Your task to perform on an android device: change keyboard looks Image 0: 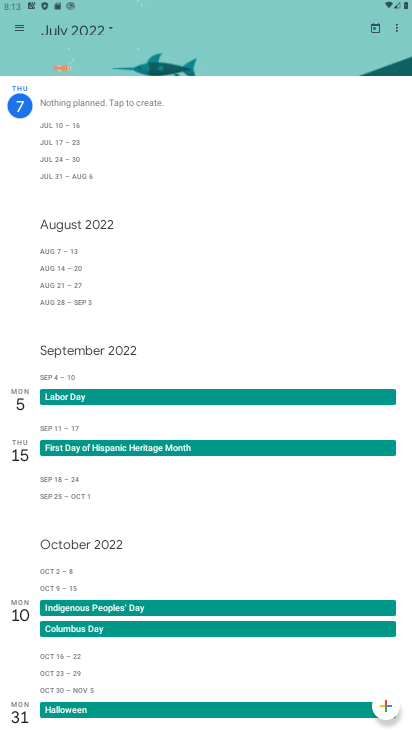
Step 0: press home button
Your task to perform on an android device: change keyboard looks Image 1: 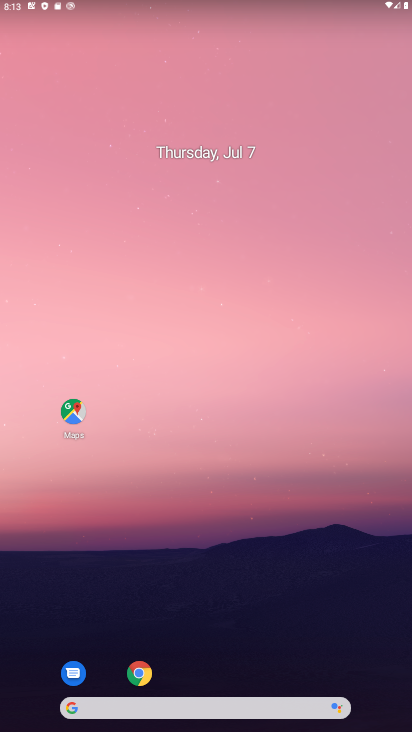
Step 1: drag from (276, 656) to (271, 210)
Your task to perform on an android device: change keyboard looks Image 2: 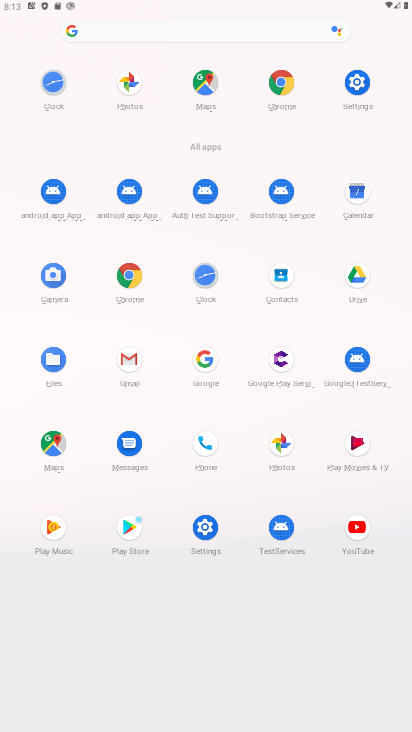
Step 2: click (364, 86)
Your task to perform on an android device: change keyboard looks Image 3: 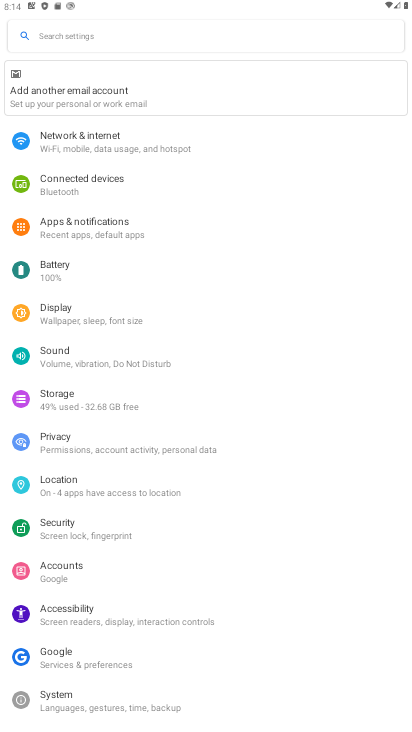
Step 3: click (67, 693)
Your task to perform on an android device: change keyboard looks Image 4: 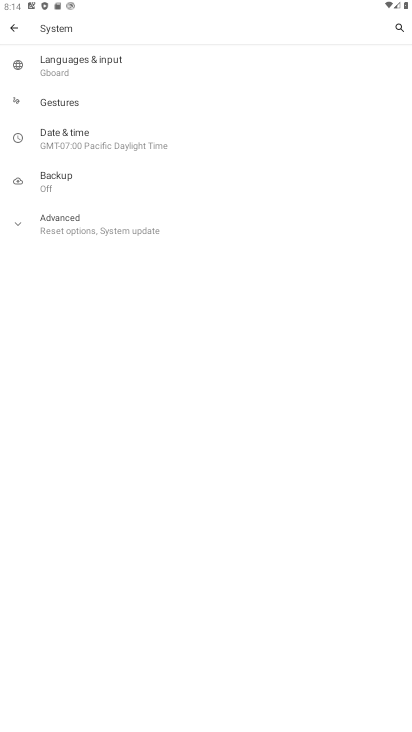
Step 4: click (64, 70)
Your task to perform on an android device: change keyboard looks Image 5: 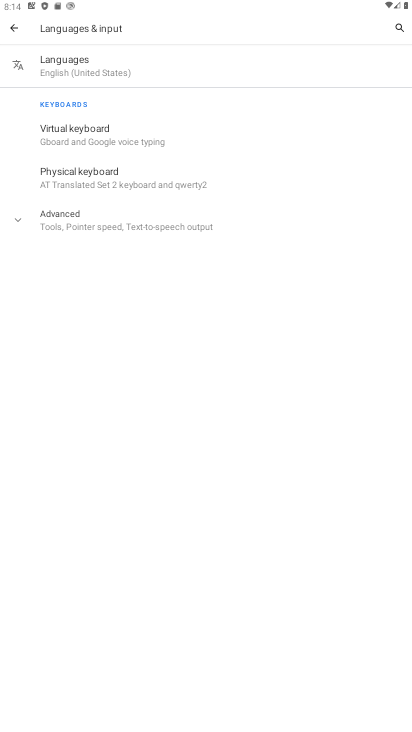
Step 5: click (69, 132)
Your task to perform on an android device: change keyboard looks Image 6: 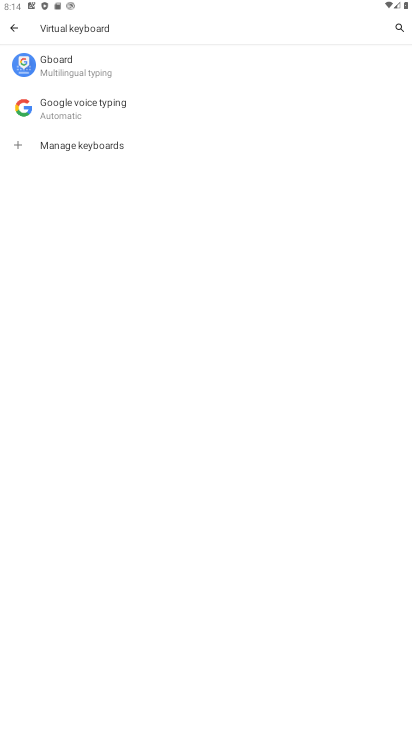
Step 6: click (46, 63)
Your task to perform on an android device: change keyboard looks Image 7: 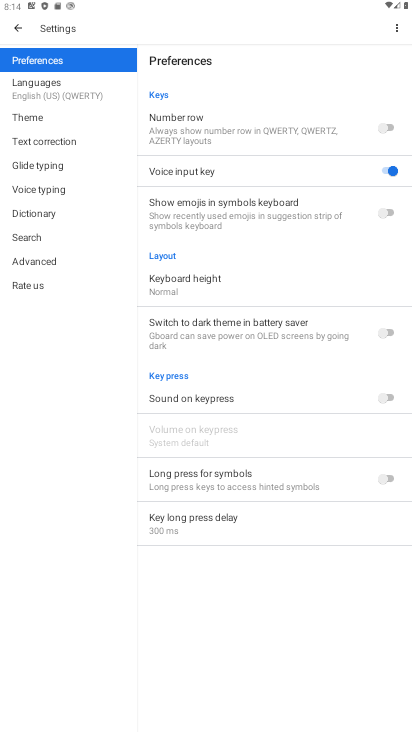
Step 7: click (30, 115)
Your task to perform on an android device: change keyboard looks Image 8: 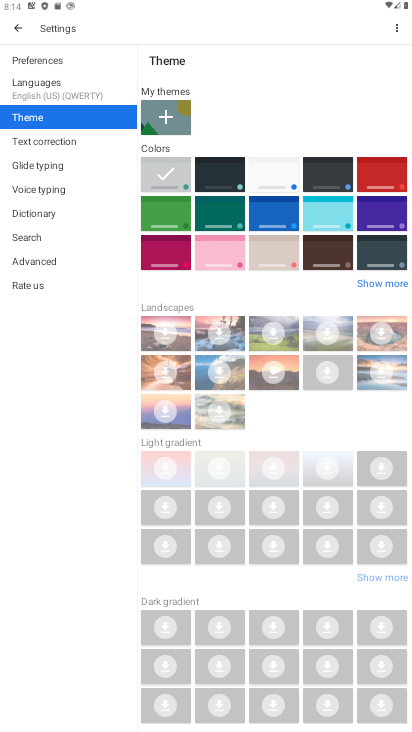
Step 8: click (232, 178)
Your task to perform on an android device: change keyboard looks Image 9: 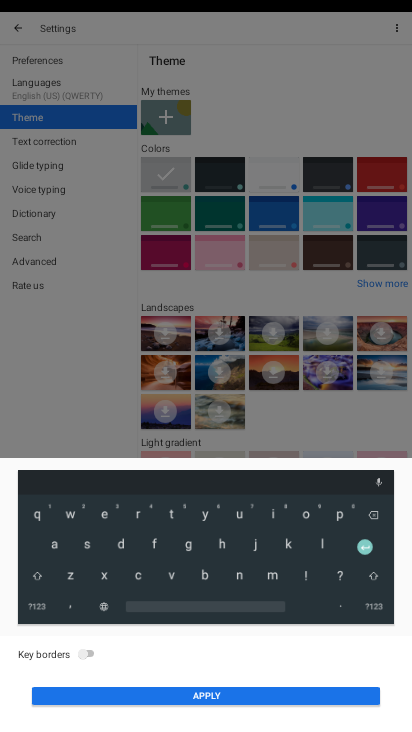
Step 9: click (143, 696)
Your task to perform on an android device: change keyboard looks Image 10: 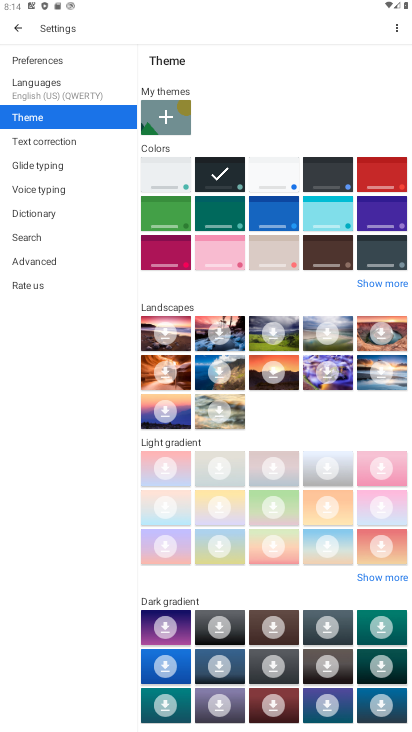
Step 10: task complete